Your task to perform on an android device: Open CNN.com Image 0: 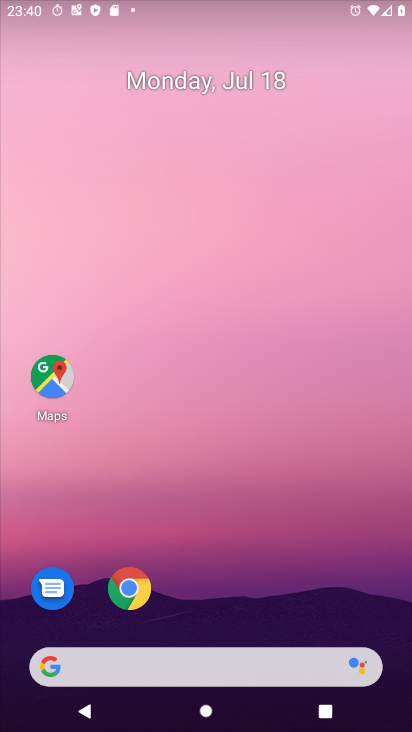
Step 0: press home button
Your task to perform on an android device: Open CNN.com Image 1: 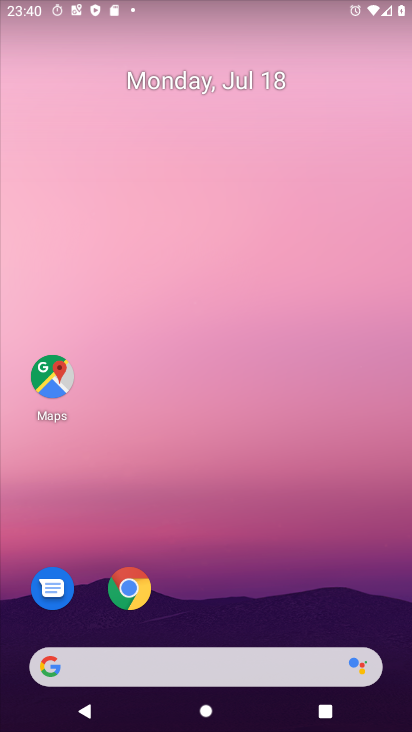
Step 1: click (136, 592)
Your task to perform on an android device: Open CNN.com Image 2: 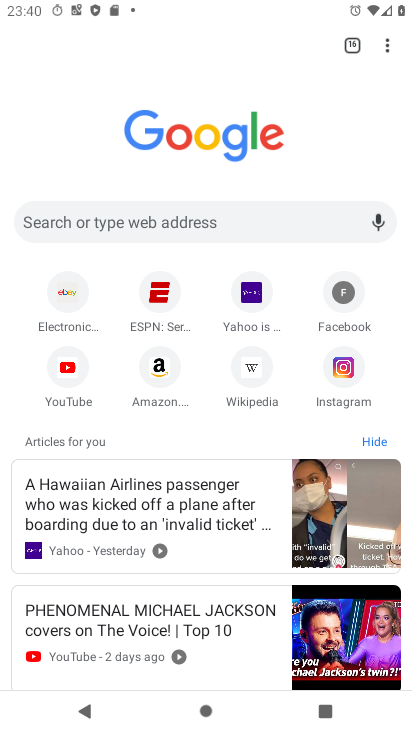
Step 2: click (123, 227)
Your task to perform on an android device: Open CNN.com Image 3: 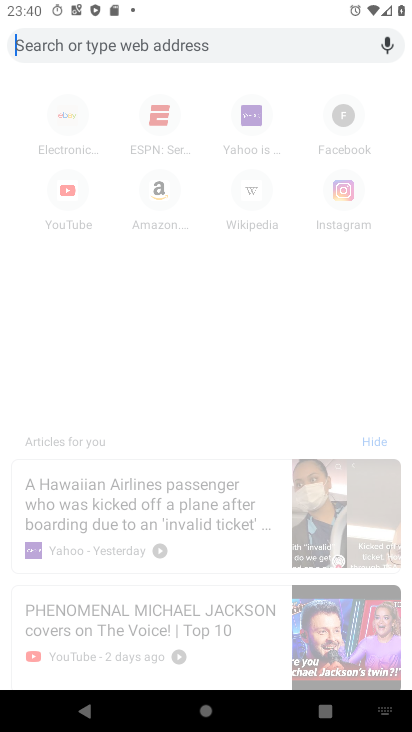
Step 3: type "cnn.com"
Your task to perform on an android device: Open CNN.com Image 4: 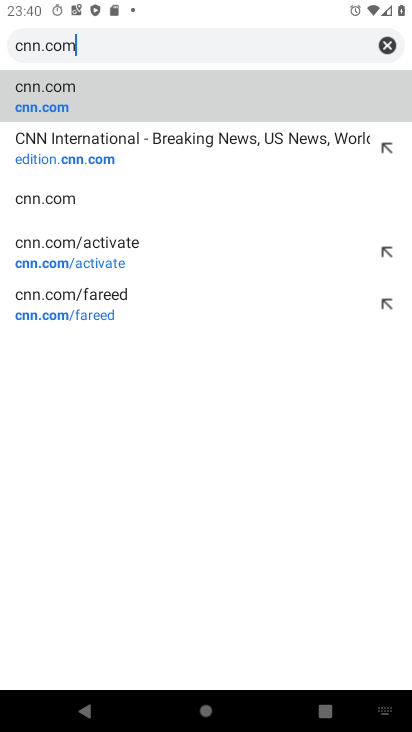
Step 4: click (75, 102)
Your task to perform on an android device: Open CNN.com Image 5: 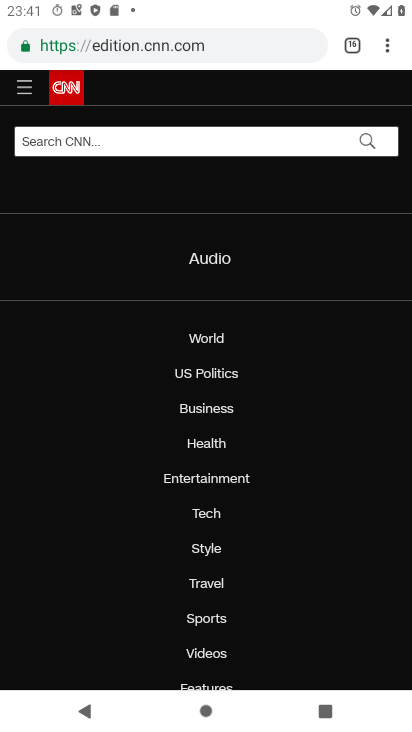
Step 5: task complete